Your task to perform on an android device: Open Google Maps and go to "Timeline" Image 0: 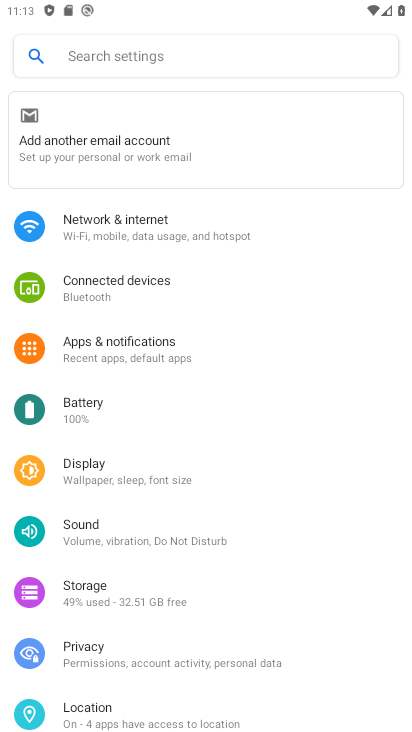
Step 0: press home button
Your task to perform on an android device: Open Google Maps and go to "Timeline" Image 1: 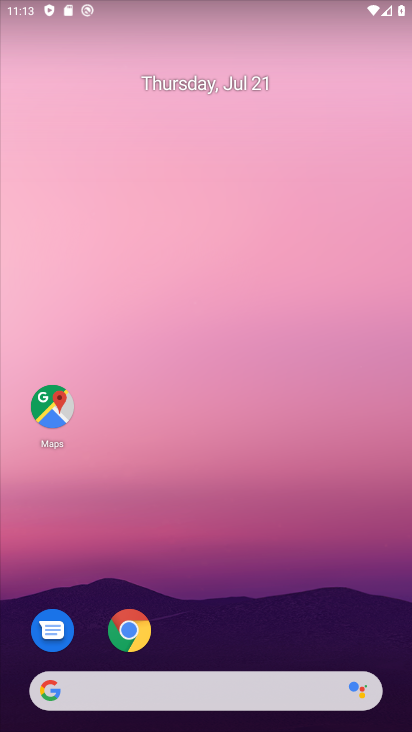
Step 1: click (45, 413)
Your task to perform on an android device: Open Google Maps and go to "Timeline" Image 2: 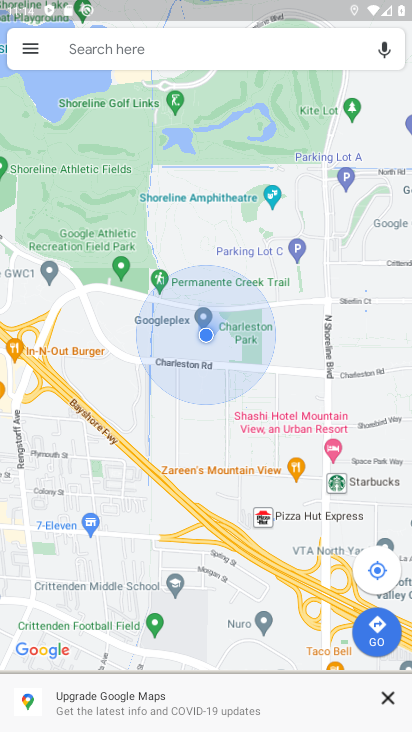
Step 2: click (27, 63)
Your task to perform on an android device: Open Google Maps and go to "Timeline" Image 3: 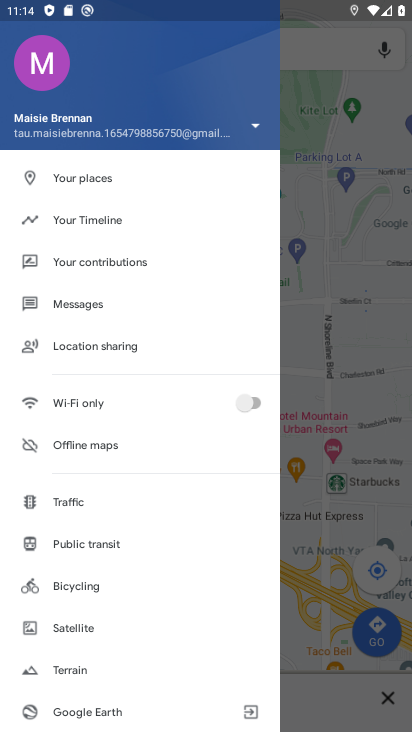
Step 3: click (78, 226)
Your task to perform on an android device: Open Google Maps and go to "Timeline" Image 4: 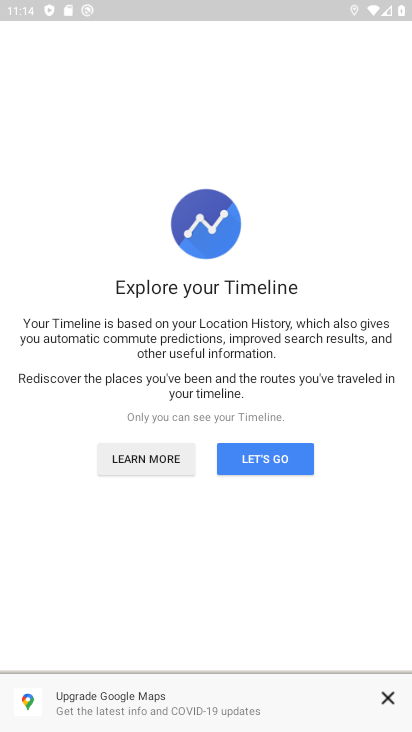
Step 4: click (249, 456)
Your task to perform on an android device: Open Google Maps and go to "Timeline" Image 5: 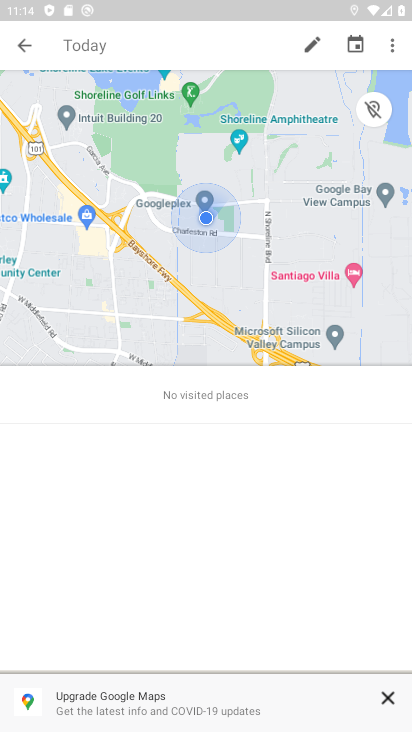
Step 5: task complete